Your task to perform on an android device: refresh tabs in the chrome app Image 0: 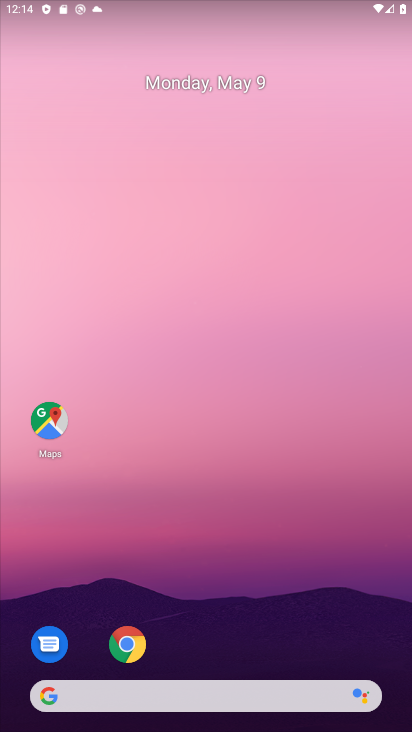
Step 0: drag from (374, 665) to (76, 68)
Your task to perform on an android device: refresh tabs in the chrome app Image 1: 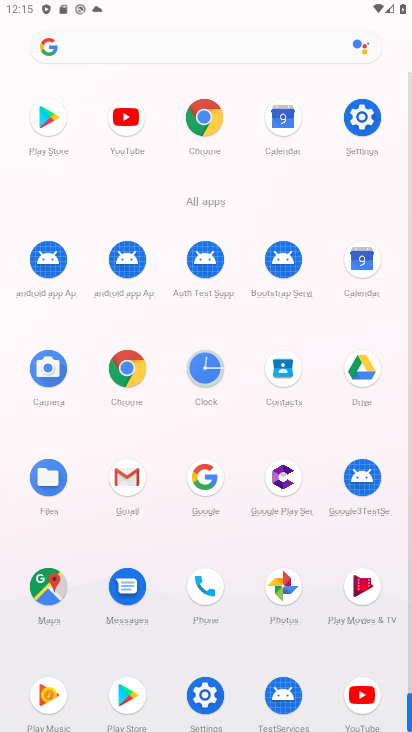
Step 1: drag from (202, 120) to (237, 175)
Your task to perform on an android device: refresh tabs in the chrome app Image 2: 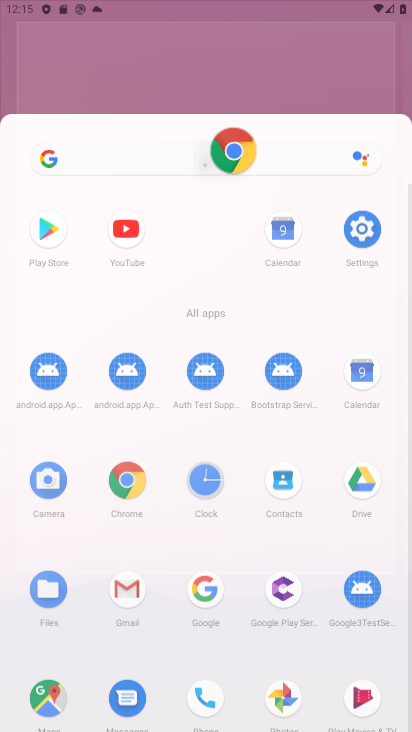
Step 2: click (238, 163)
Your task to perform on an android device: refresh tabs in the chrome app Image 3: 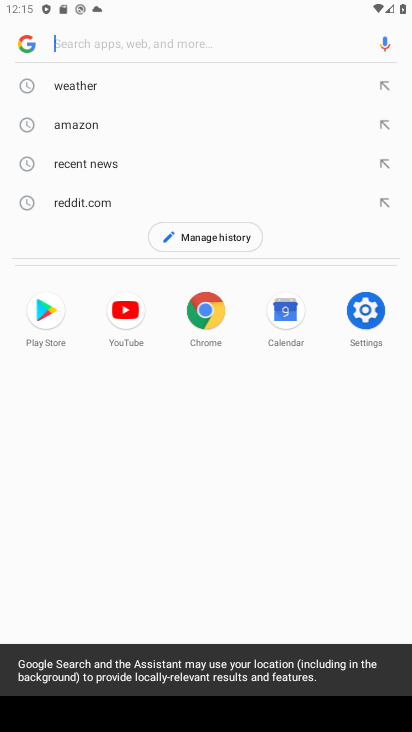
Step 3: click (200, 293)
Your task to perform on an android device: refresh tabs in the chrome app Image 4: 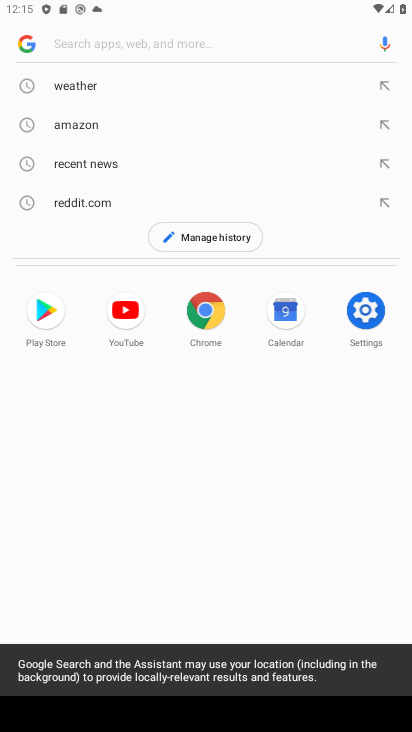
Step 4: click (202, 298)
Your task to perform on an android device: refresh tabs in the chrome app Image 5: 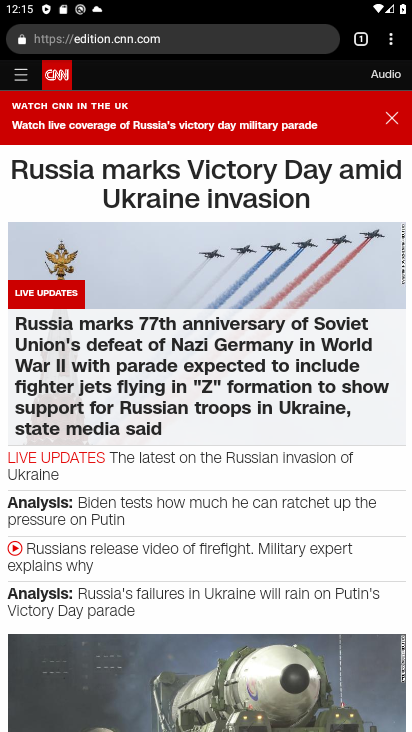
Step 5: drag from (384, 38) to (251, 73)
Your task to perform on an android device: refresh tabs in the chrome app Image 6: 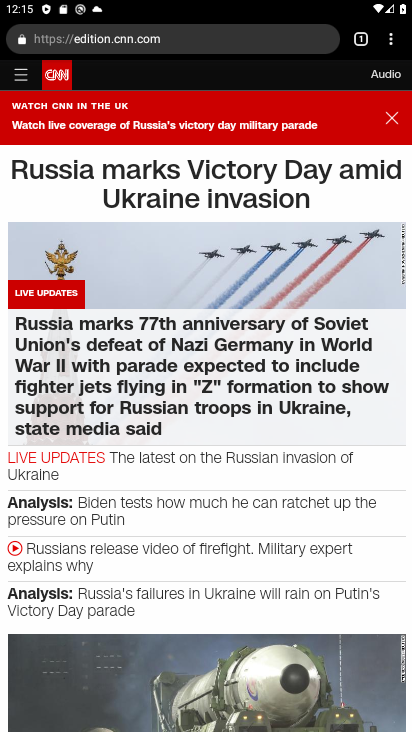
Step 6: click (251, 73)
Your task to perform on an android device: refresh tabs in the chrome app Image 7: 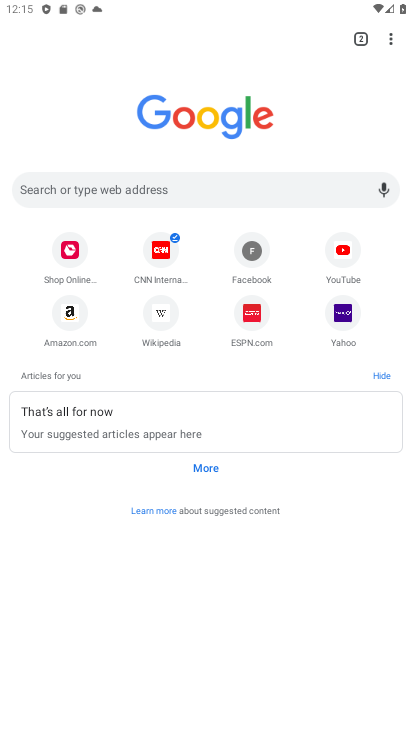
Step 7: click (390, 34)
Your task to perform on an android device: refresh tabs in the chrome app Image 8: 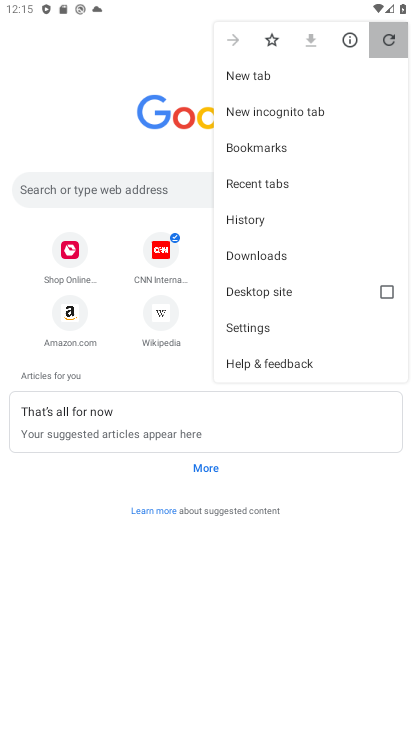
Step 8: click (391, 38)
Your task to perform on an android device: refresh tabs in the chrome app Image 9: 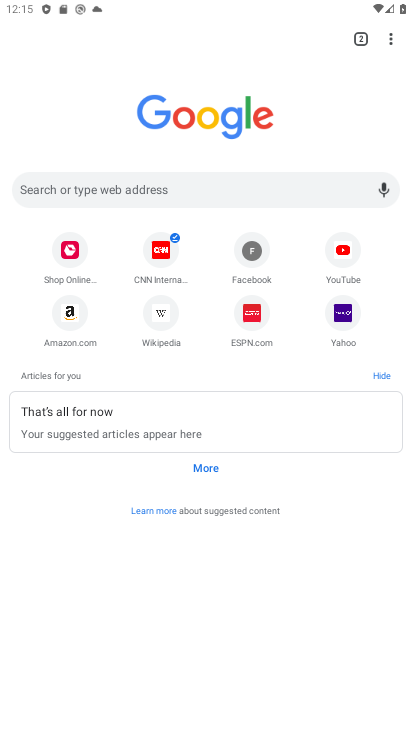
Step 9: click (391, 38)
Your task to perform on an android device: refresh tabs in the chrome app Image 10: 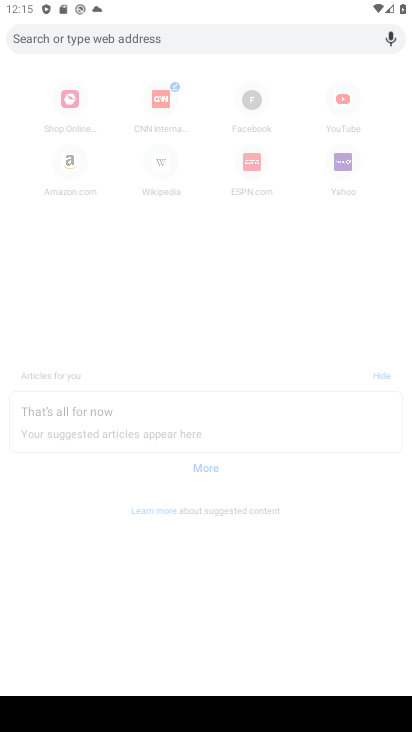
Step 10: task complete